Your task to perform on an android device: Go to ESPN.com Image 0: 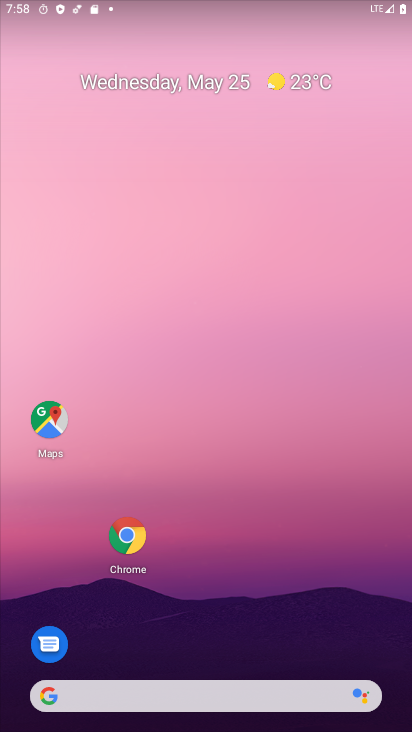
Step 0: click (116, 530)
Your task to perform on an android device: Go to ESPN.com Image 1: 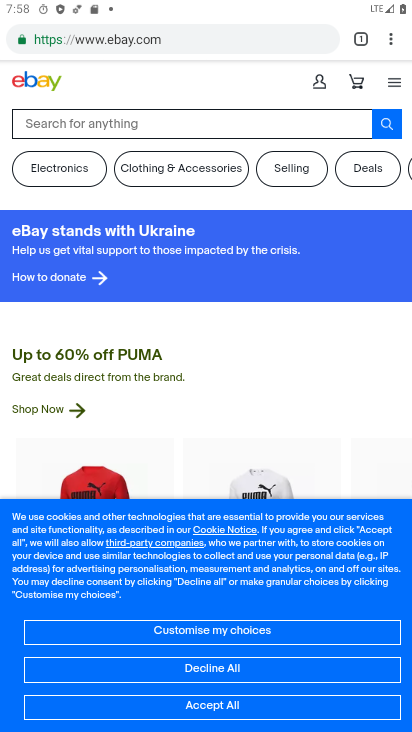
Step 1: click (169, 31)
Your task to perform on an android device: Go to ESPN.com Image 2: 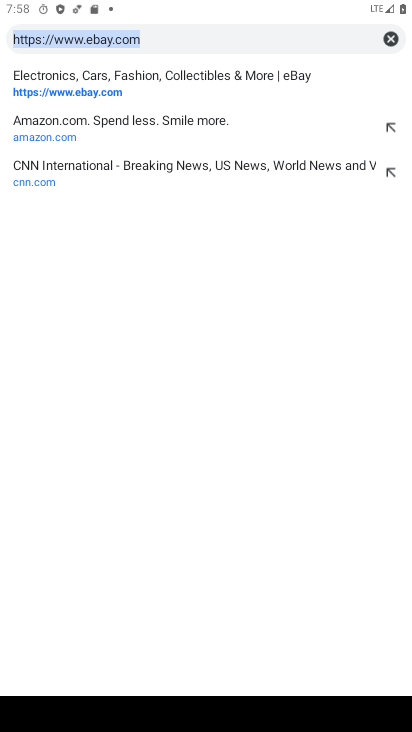
Step 2: type "espn.com"
Your task to perform on an android device: Go to ESPN.com Image 3: 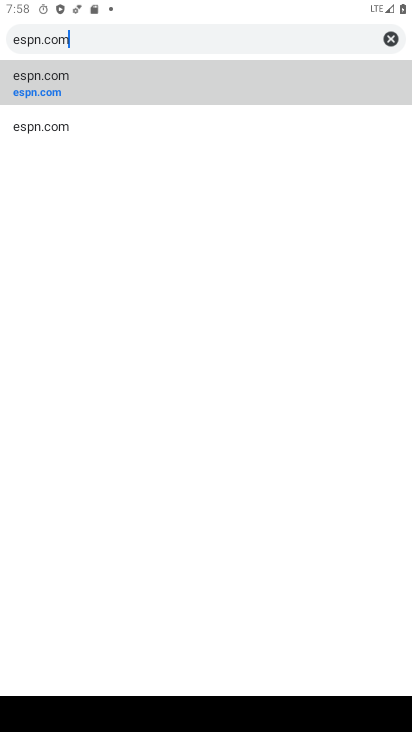
Step 3: click (78, 78)
Your task to perform on an android device: Go to ESPN.com Image 4: 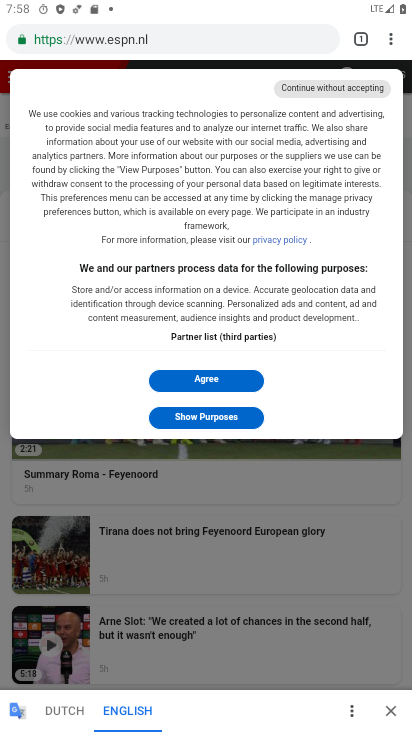
Step 4: task complete